Your task to perform on an android device: Go to accessibility settings Image 0: 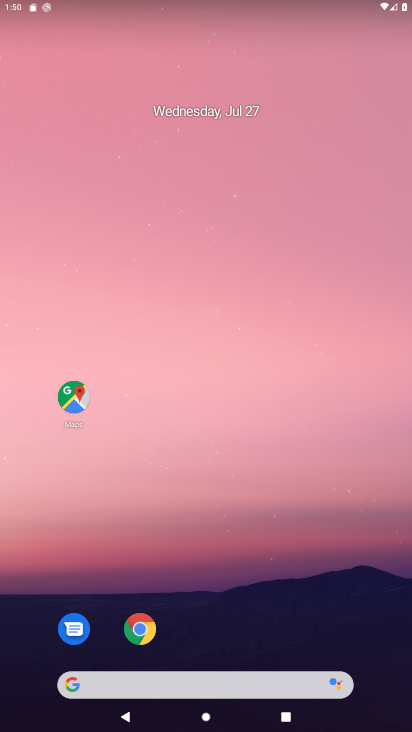
Step 0: drag from (263, 645) to (164, 150)
Your task to perform on an android device: Go to accessibility settings Image 1: 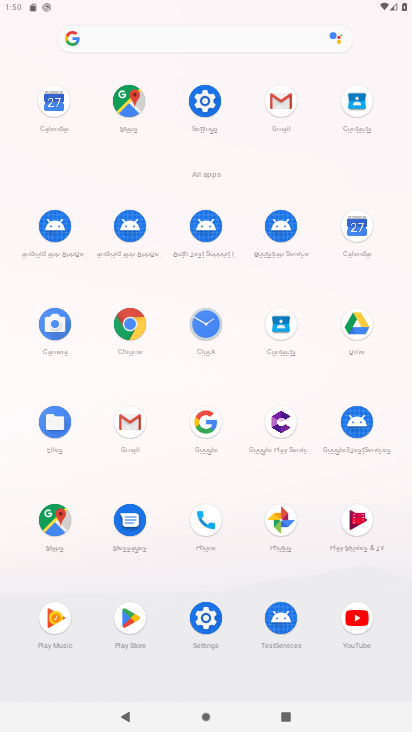
Step 1: click (206, 106)
Your task to perform on an android device: Go to accessibility settings Image 2: 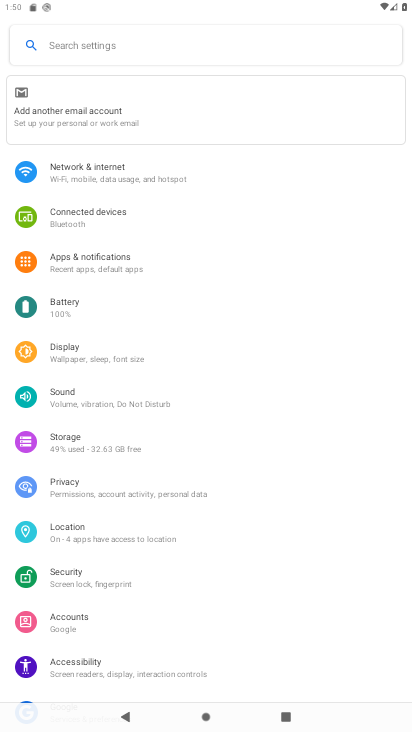
Step 2: click (144, 657)
Your task to perform on an android device: Go to accessibility settings Image 3: 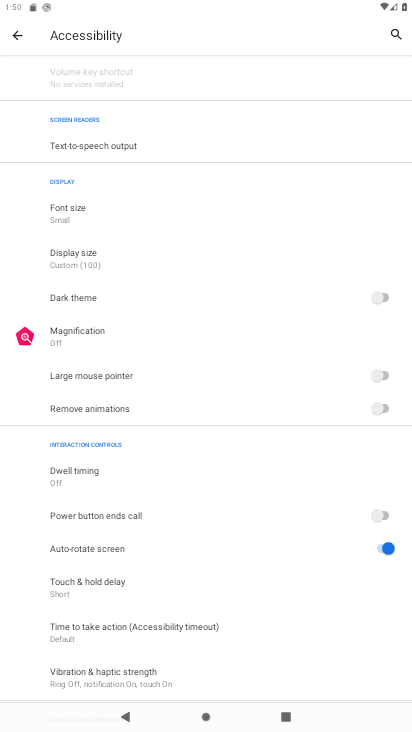
Step 3: task complete